Your task to perform on an android device: Go to CNN.com Image 0: 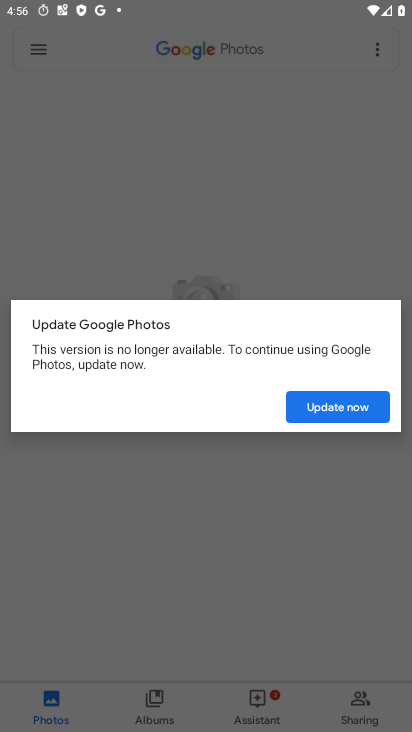
Step 0: press home button
Your task to perform on an android device: Go to CNN.com Image 1: 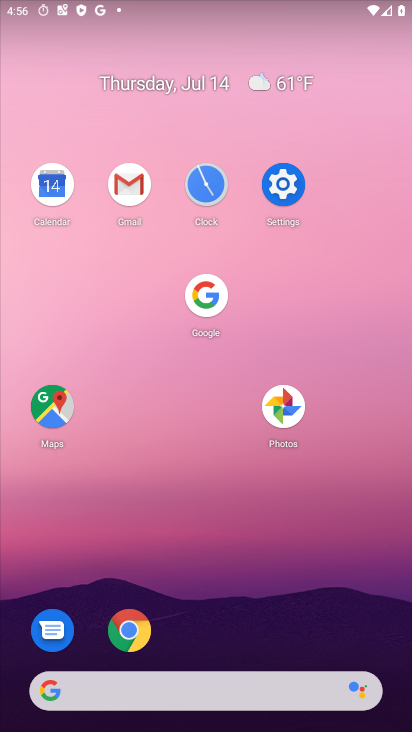
Step 1: click (124, 636)
Your task to perform on an android device: Go to CNN.com Image 2: 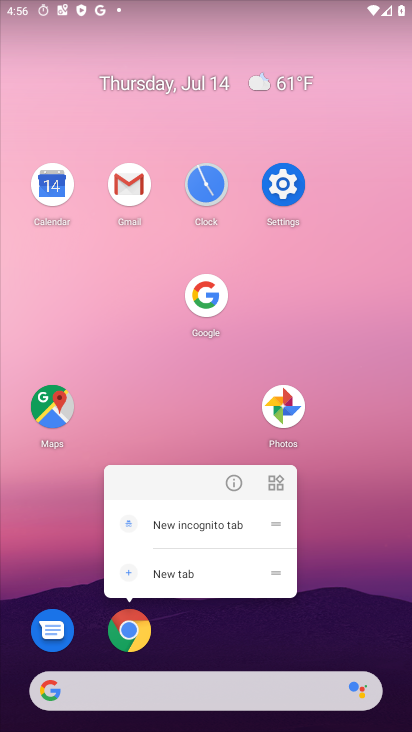
Step 2: click (121, 636)
Your task to perform on an android device: Go to CNN.com Image 3: 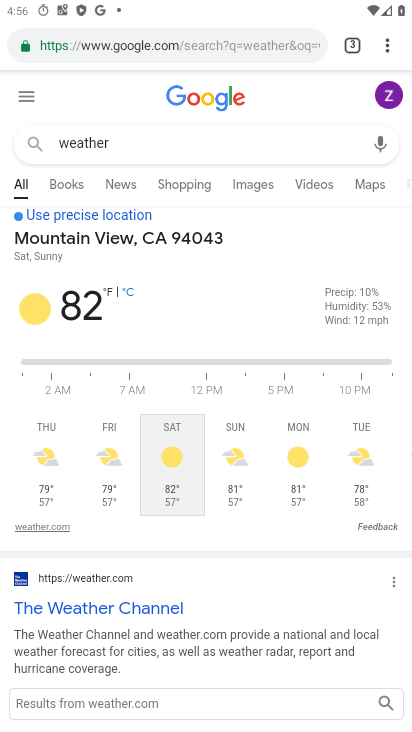
Step 3: click (345, 37)
Your task to perform on an android device: Go to CNN.com Image 4: 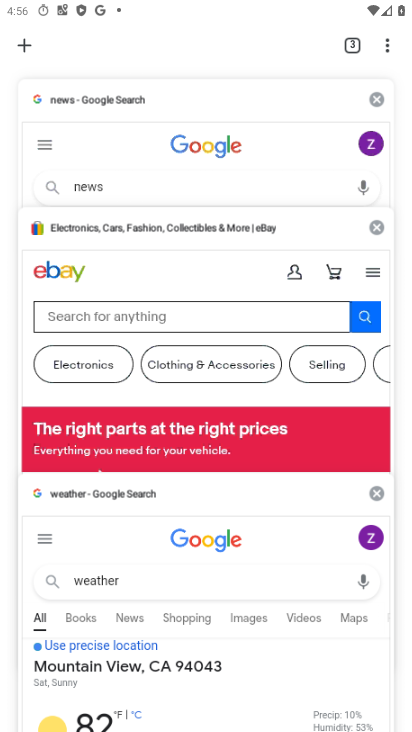
Step 4: click (19, 39)
Your task to perform on an android device: Go to CNN.com Image 5: 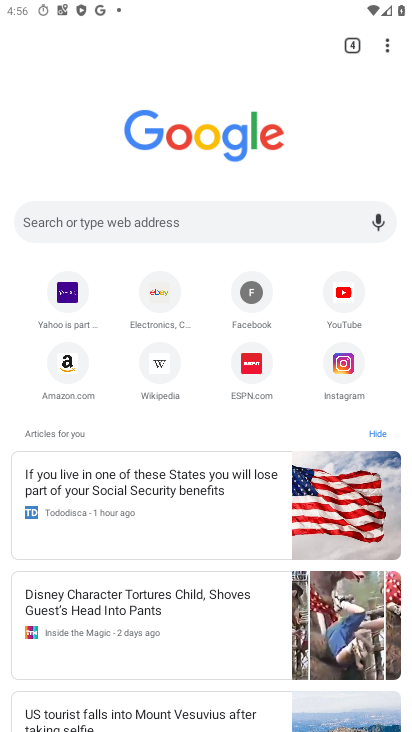
Step 5: click (155, 221)
Your task to perform on an android device: Go to CNN.com Image 6: 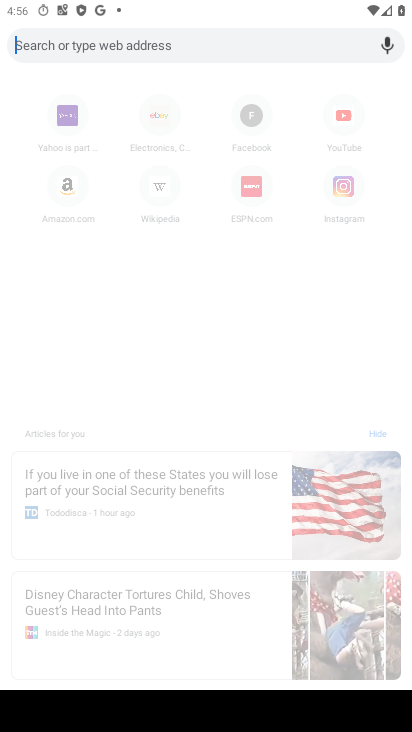
Step 6: type "cnn"
Your task to perform on an android device: Go to CNN.com Image 7: 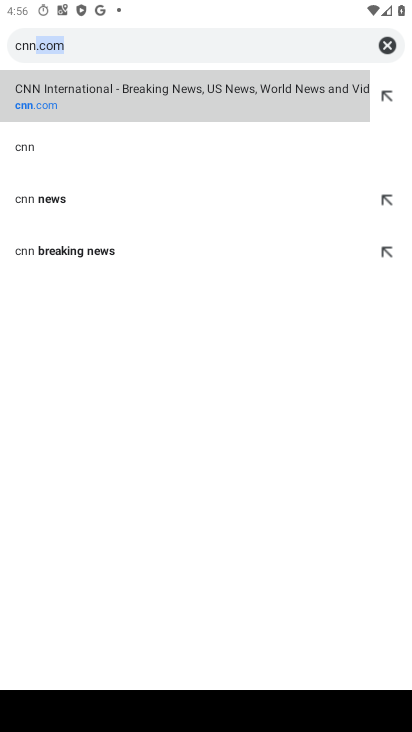
Step 7: click (79, 105)
Your task to perform on an android device: Go to CNN.com Image 8: 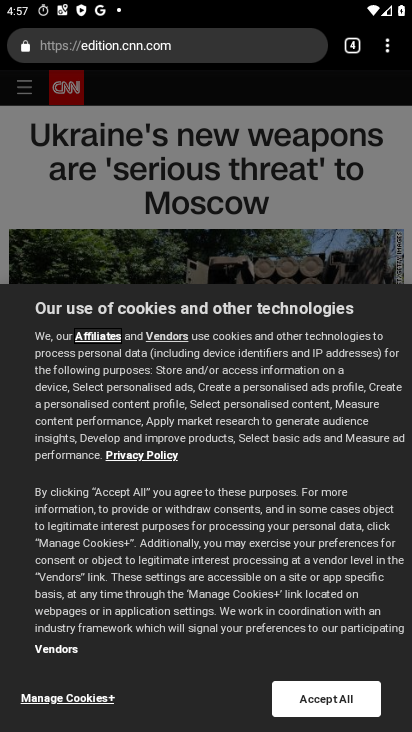
Step 8: task complete